Your task to perform on an android device: manage bookmarks in the chrome app Image 0: 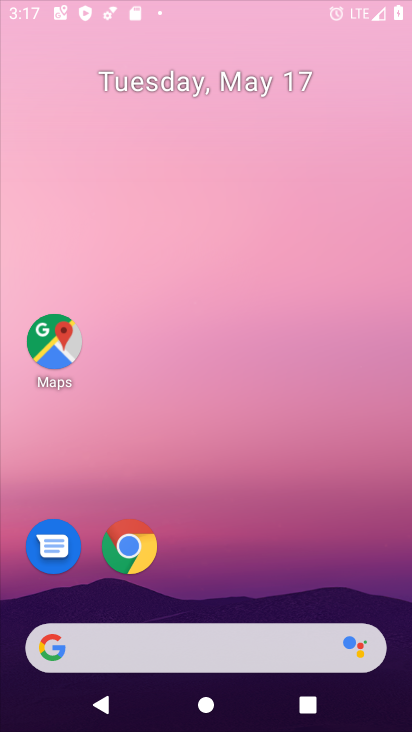
Step 0: press home button
Your task to perform on an android device: manage bookmarks in the chrome app Image 1: 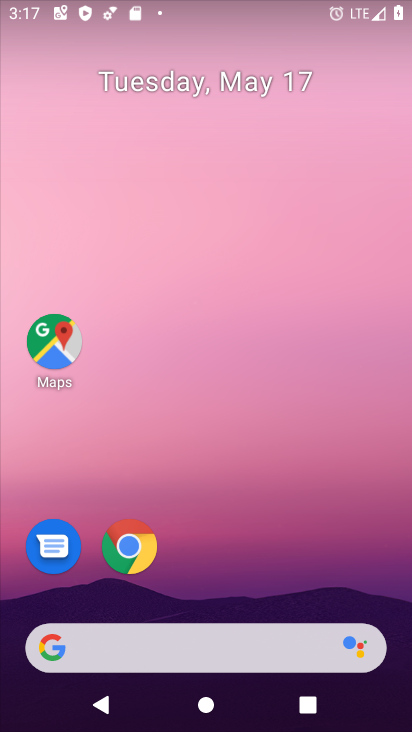
Step 1: click (125, 539)
Your task to perform on an android device: manage bookmarks in the chrome app Image 2: 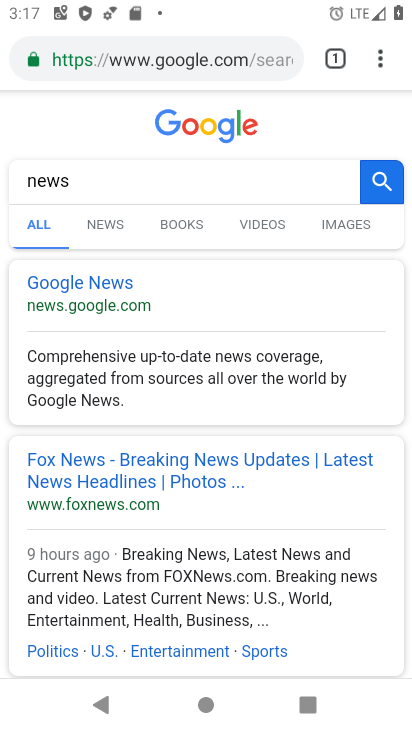
Step 2: task complete